Your task to perform on an android device: Search for seafood restaurants on Google Maps Image 0: 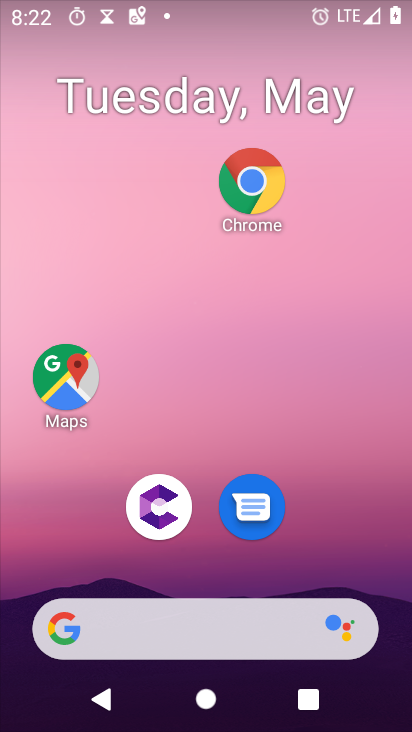
Step 0: click (72, 378)
Your task to perform on an android device: Search for seafood restaurants on Google Maps Image 1: 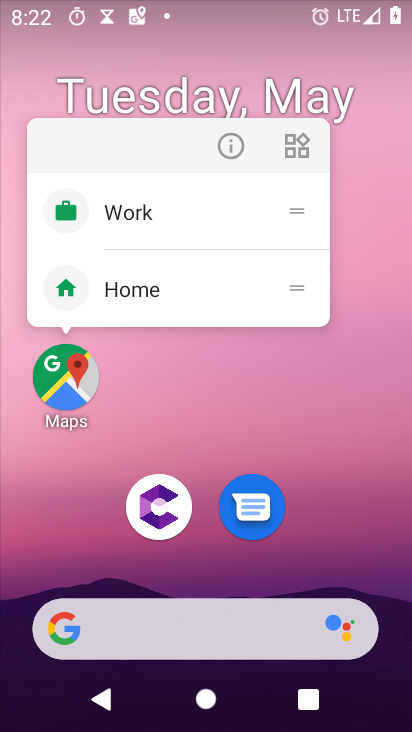
Step 1: click (78, 363)
Your task to perform on an android device: Search for seafood restaurants on Google Maps Image 2: 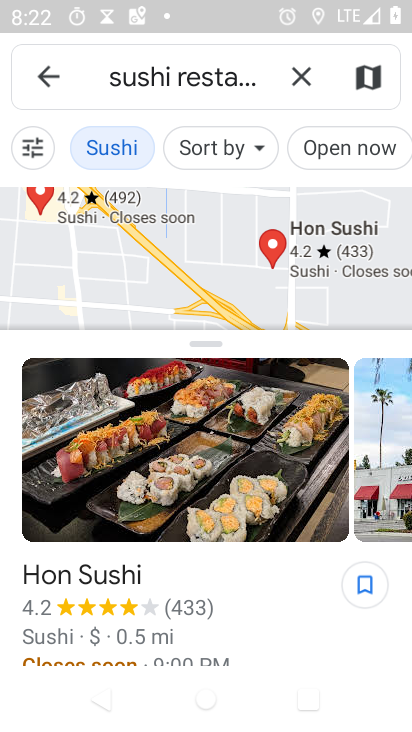
Step 2: click (304, 67)
Your task to perform on an android device: Search for seafood restaurants on Google Maps Image 3: 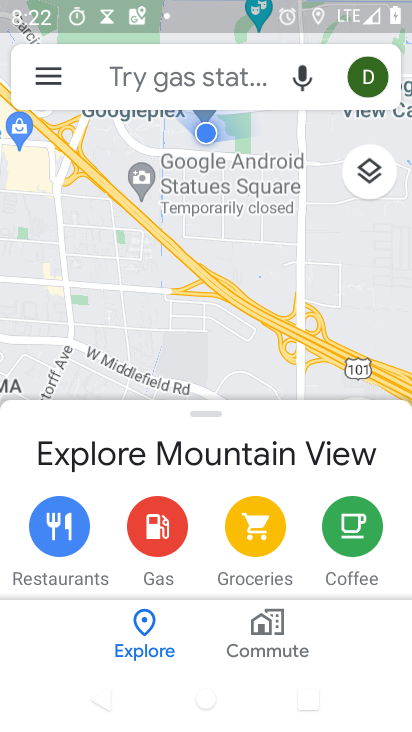
Step 3: click (209, 78)
Your task to perform on an android device: Search for seafood restaurants on Google Maps Image 4: 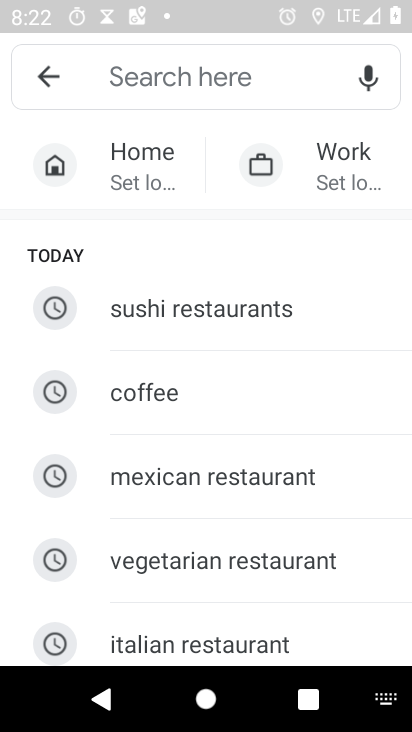
Step 4: type "seafood restaurants"
Your task to perform on an android device: Search for seafood restaurants on Google Maps Image 5: 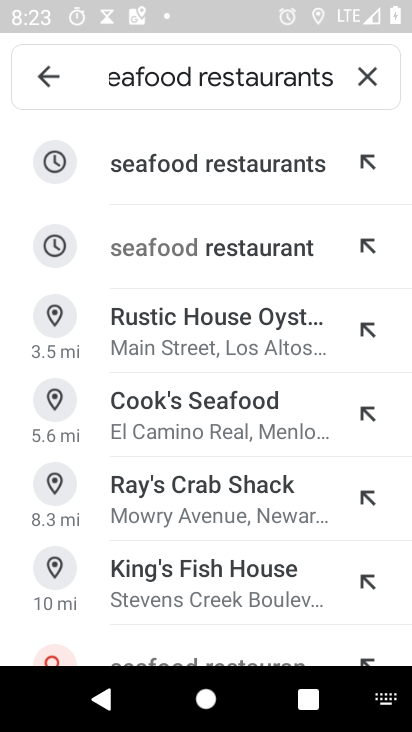
Step 5: click (117, 162)
Your task to perform on an android device: Search for seafood restaurants on Google Maps Image 6: 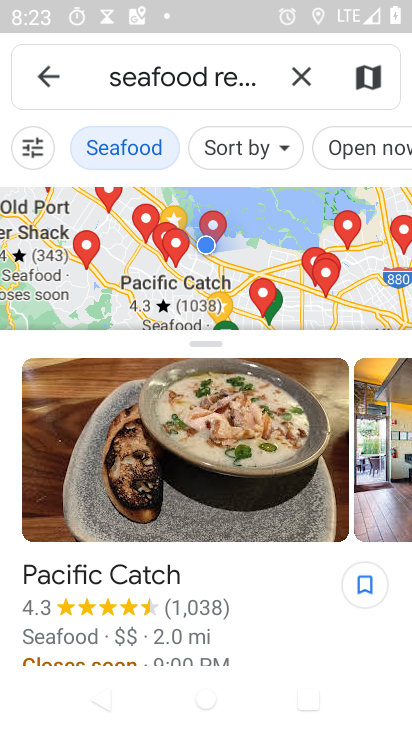
Step 6: task complete